Your task to perform on an android device: turn on data saver in the chrome app Image 0: 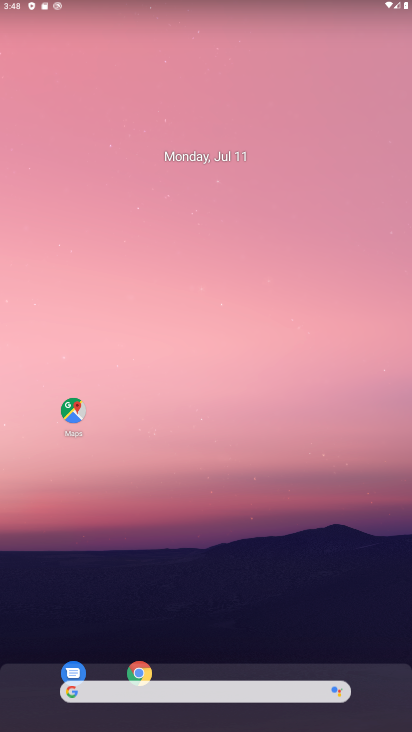
Step 0: click (139, 673)
Your task to perform on an android device: turn on data saver in the chrome app Image 1: 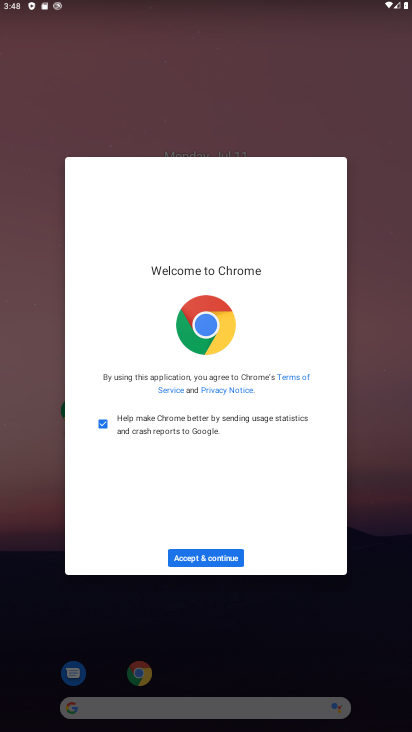
Step 1: click (186, 558)
Your task to perform on an android device: turn on data saver in the chrome app Image 2: 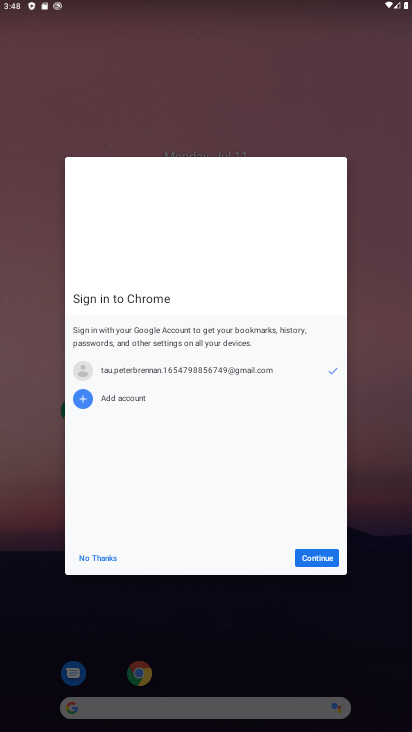
Step 2: click (314, 562)
Your task to perform on an android device: turn on data saver in the chrome app Image 3: 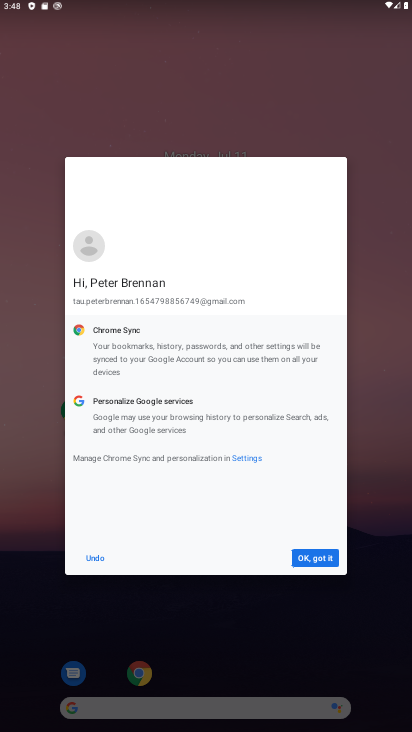
Step 3: click (314, 562)
Your task to perform on an android device: turn on data saver in the chrome app Image 4: 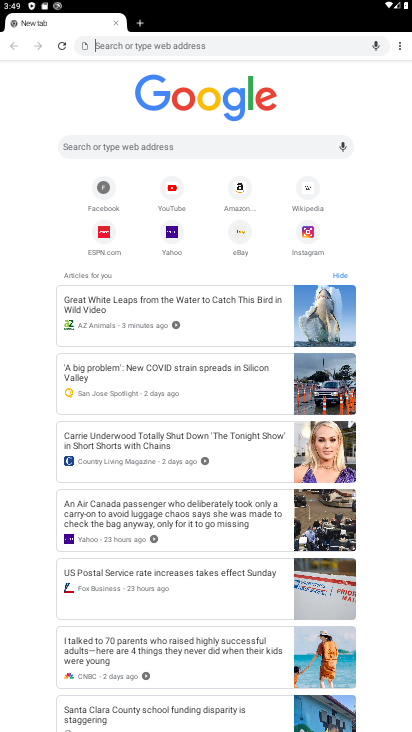
Step 4: click (398, 48)
Your task to perform on an android device: turn on data saver in the chrome app Image 5: 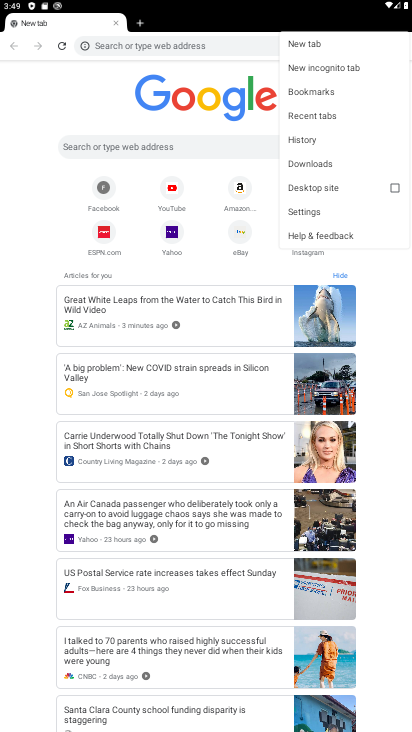
Step 5: click (309, 212)
Your task to perform on an android device: turn on data saver in the chrome app Image 6: 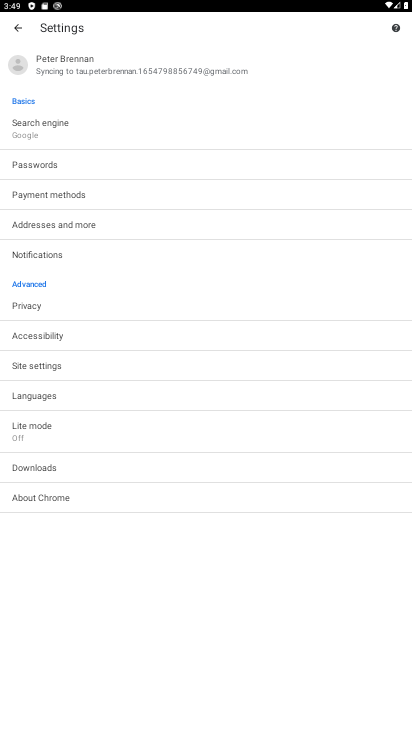
Step 6: click (61, 429)
Your task to perform on an android device: turn on data saver in the chrome app Image 7: 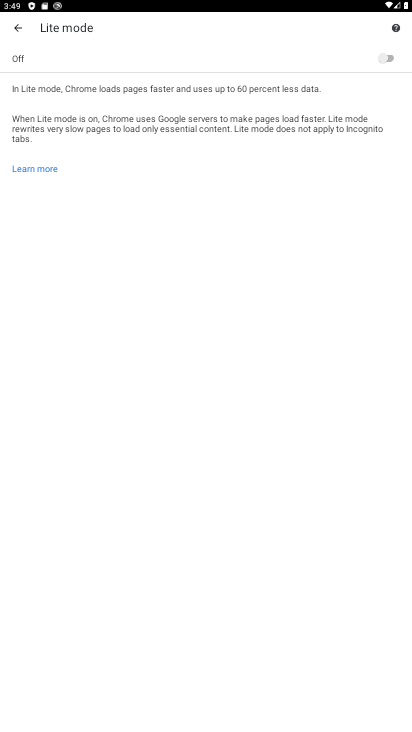
Step 7: click (387, 57)
Your task to perform on an android device: turn on data saver in the chrome app Image 8: 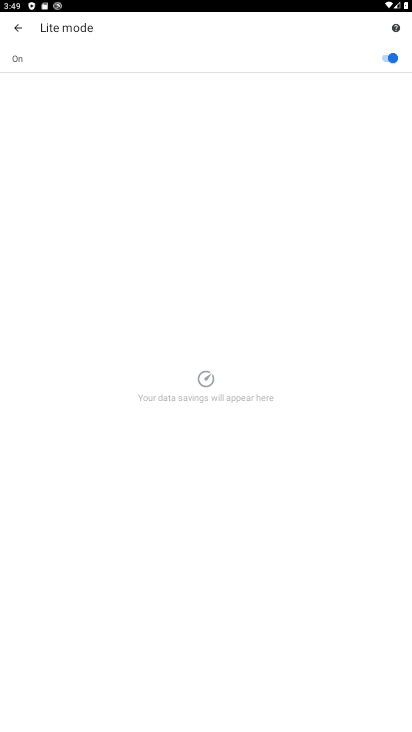
Step 8: task complete